Your task to perform on an android device: Open Chrome and go to settings Image 0: 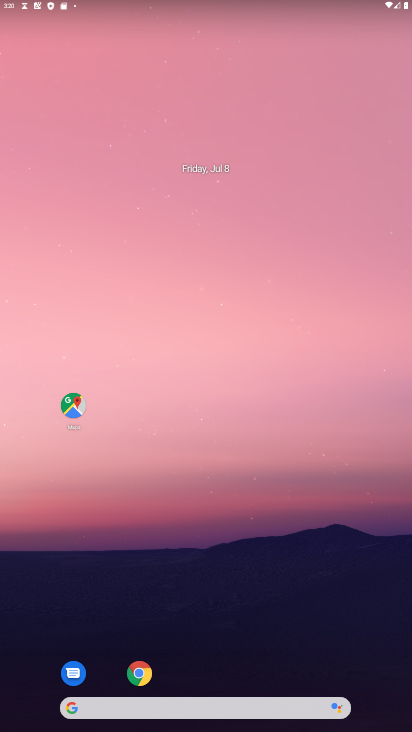
Step 0: click (148, 673)
Your task to perform on an android device: Open Chrome and go to settings Image 1: 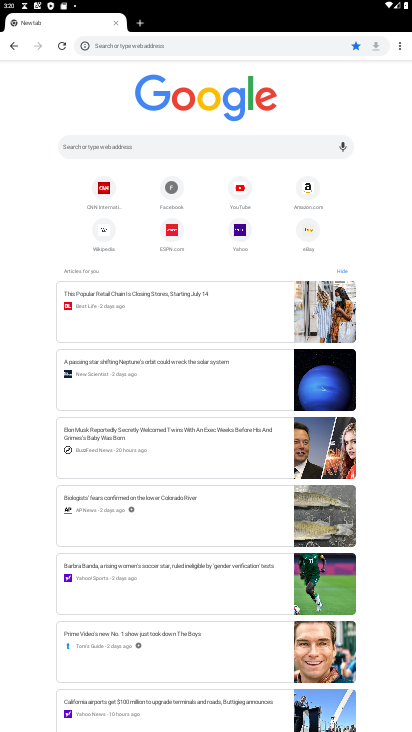
Step 1: click (403, 43)
Your task to perform on an android device: Open Chrome and go to settings Image 2: 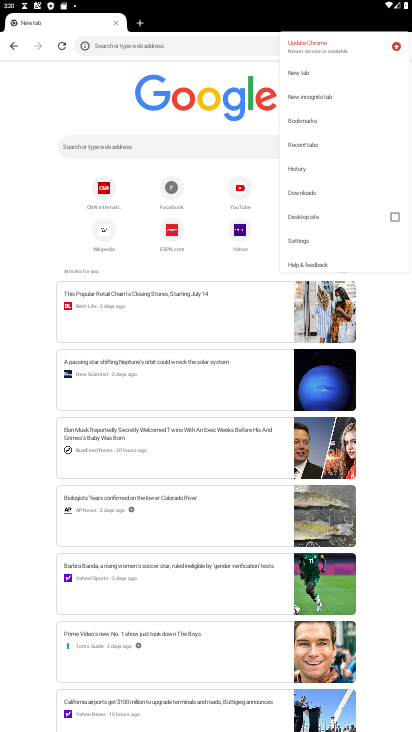
Step 2: click (303, 239)
Your task to perform on an android device: Open Chrome and go to settings Image 3: 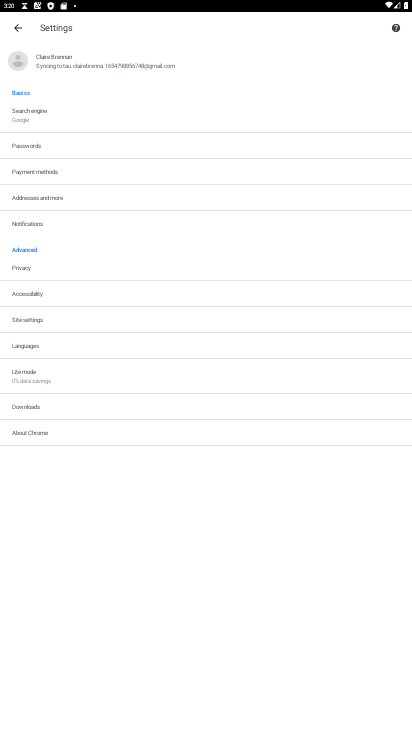
Step 3: task complete